Your task to perform on an android device: set default search engine in the chrome app Image 0: 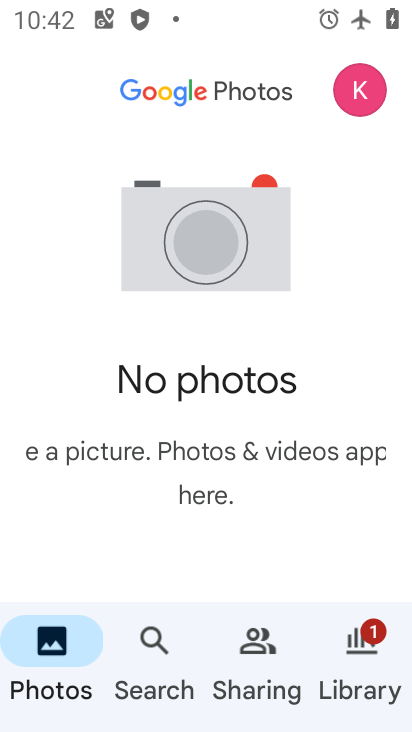
Step 0: press home button
Your task to perform on an android device: set default search engine in the chrome app Image 1: 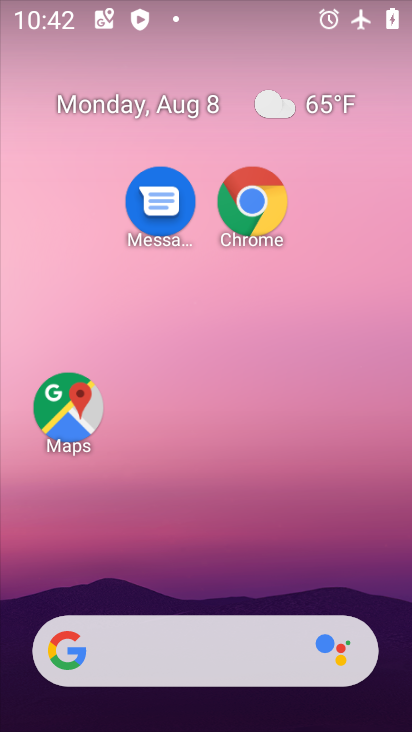
Step 1: click (243, 195)
Your task to perform on an android device: set default search engine in the chrome app Image 2: 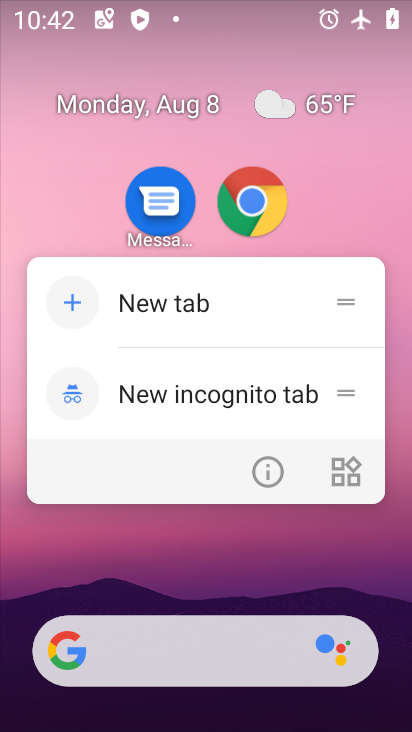
Step 2: click (253, 189)
Your task to perform on an android device: set default search engine in the chrome app Image 3: 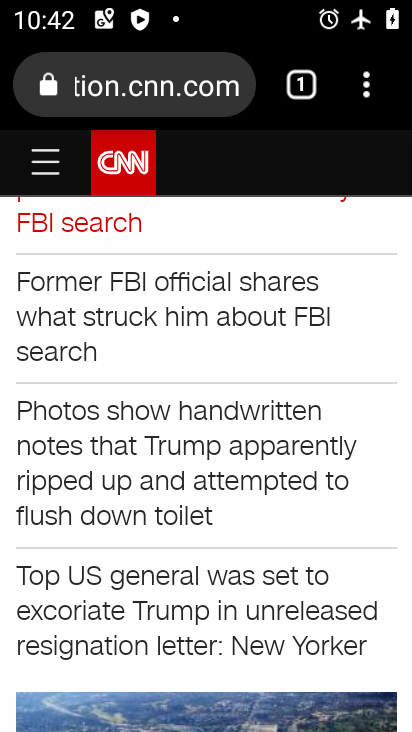
Step 3: click (366, 90)
Your task to perform on an android device: set default search engine in the chrome app Image 4: 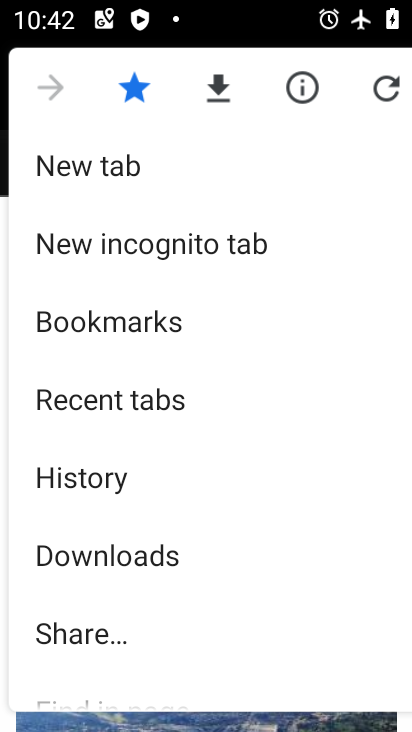
Step 4: drag from (209, 632) to (227, 136)
Your task to perform on an android device: set default search engine in the chrome app Image 5: 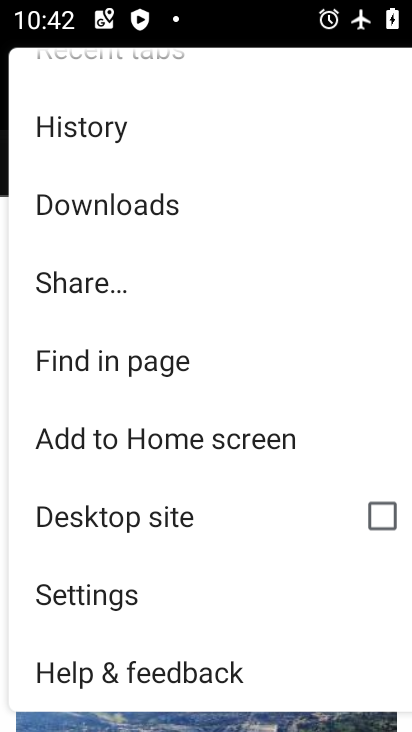
Step 5: click (153, 596)
Your task to perform on an android device: set default search engine in the chrome app Image 6: 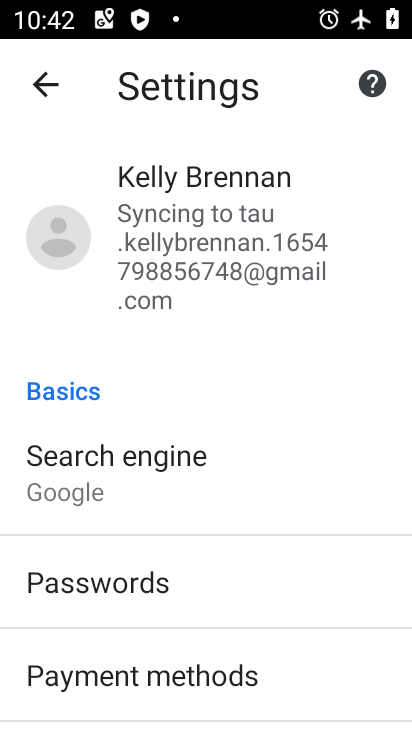
Step 6: click (125, 482)
Your task to perform on an android device: set default search engine in the chrome app Image 7: 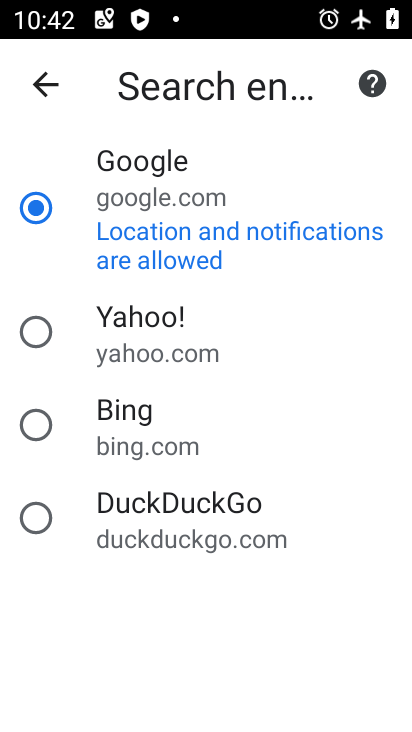
Step 7: click (41, 423)
Your task to perform on an android device: set default search engine in the chrome app Image 8: 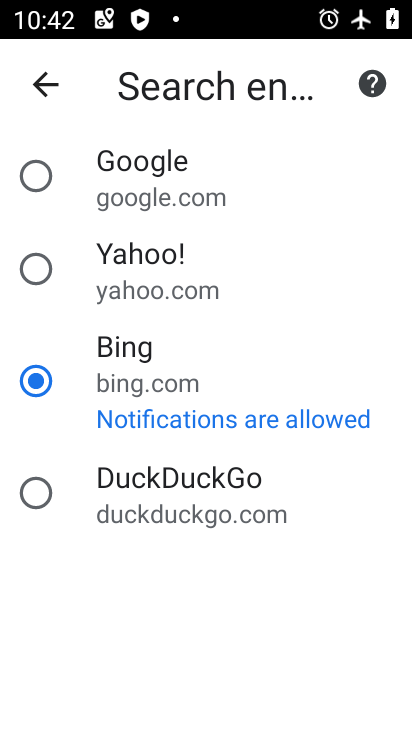
Step 8: task complete